Your task to perform on an android device: check android version Image 0: 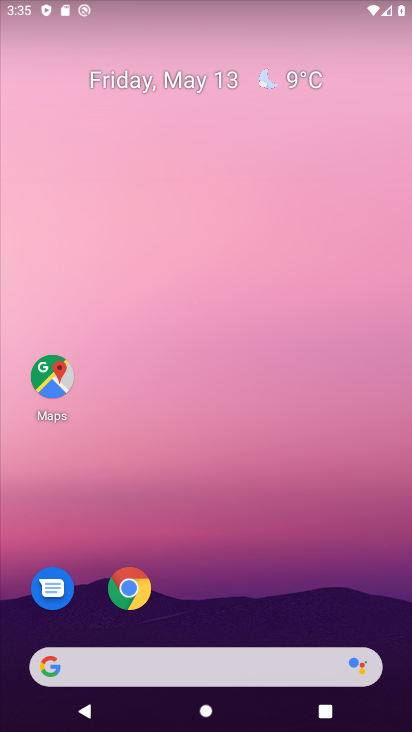
Step 0: drag from (169, 640) to (330, 188)
Your task to perform on an android device: check android version Image 1: 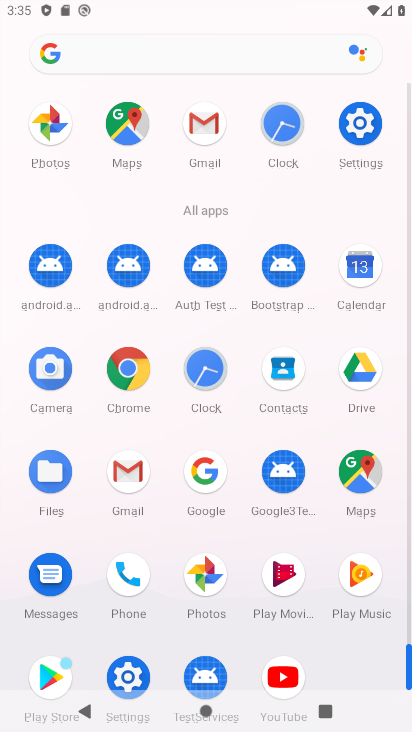
Step 1: drag from (229, 639) to (257, 501)
Your task to perform on an android device: check android version Image 2: 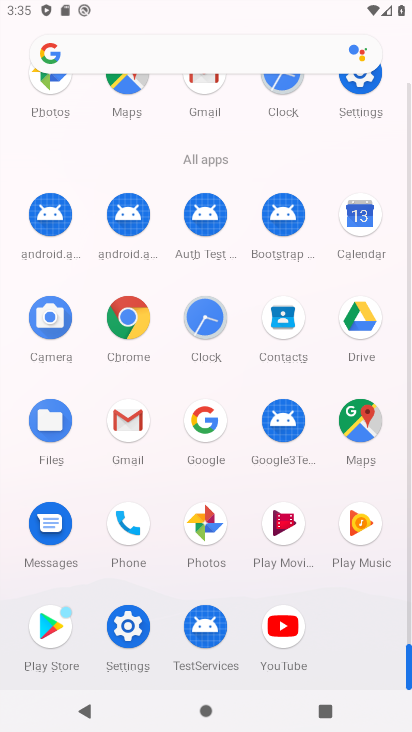
Step 2: click (122, 624)
Your task to perform on an android device: check android version Image 3: 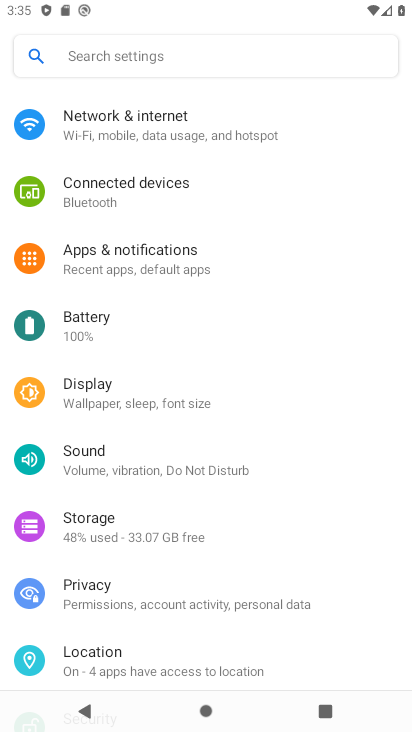
Step 3: drag from (198, 611) to (324, 163)
Your task to perform on an android device: check android version Image 4: 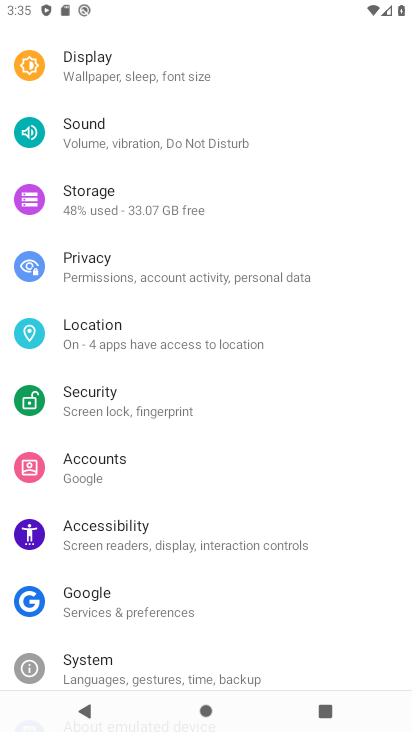
Step 4: drag from (223, 477) to (314, 110)
Your task to perform on an android device: check android version Image 5: 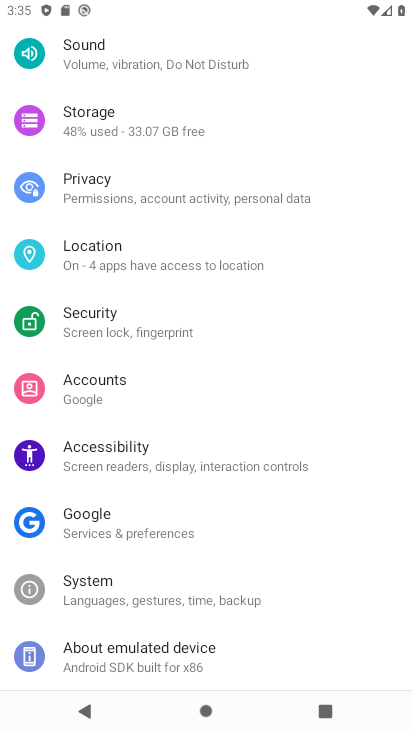
Step 5: click (143, 662)
Your task to perform on an android device: check android version Image 6: 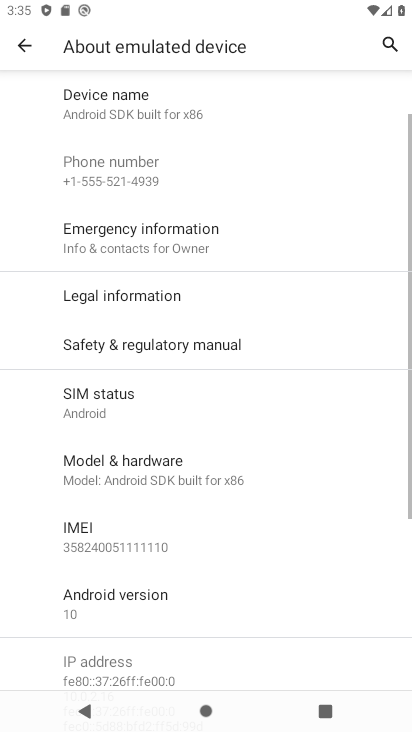
Step 6: drag from (144, 662) to (245, 259)
Your task to perform on an android device: check android version Image 7: 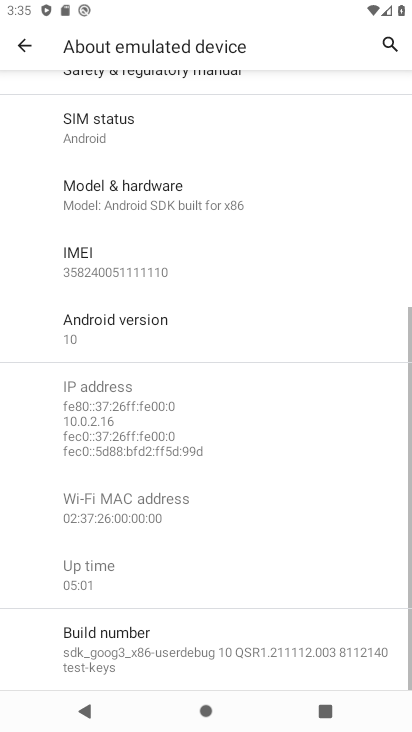
Step 7: drag from (196, 334) to (216, 684)
Your task to perform on an android device: check android version Image 8: 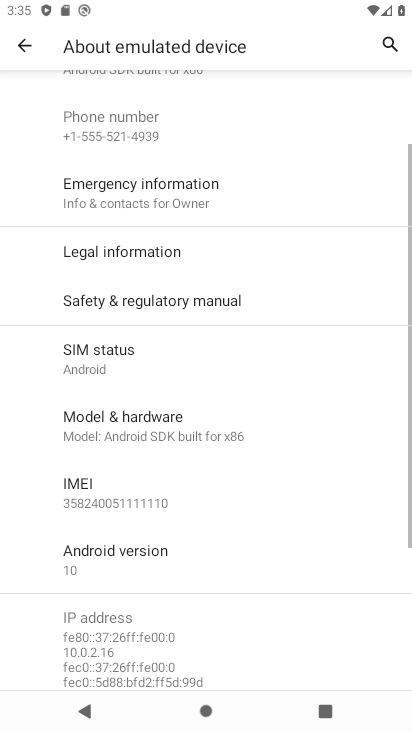
Step 8: click (176, 568)
Your task to perform on an android device: check android version Image 9: 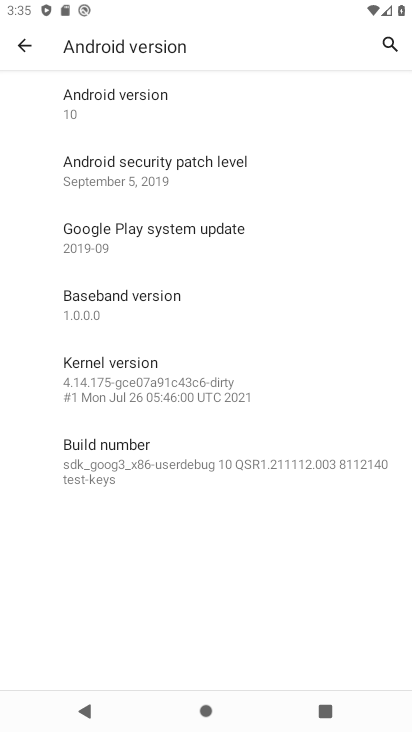
Step 9: task complete